Your task to perform on an android device: open wifi settings Image 0: 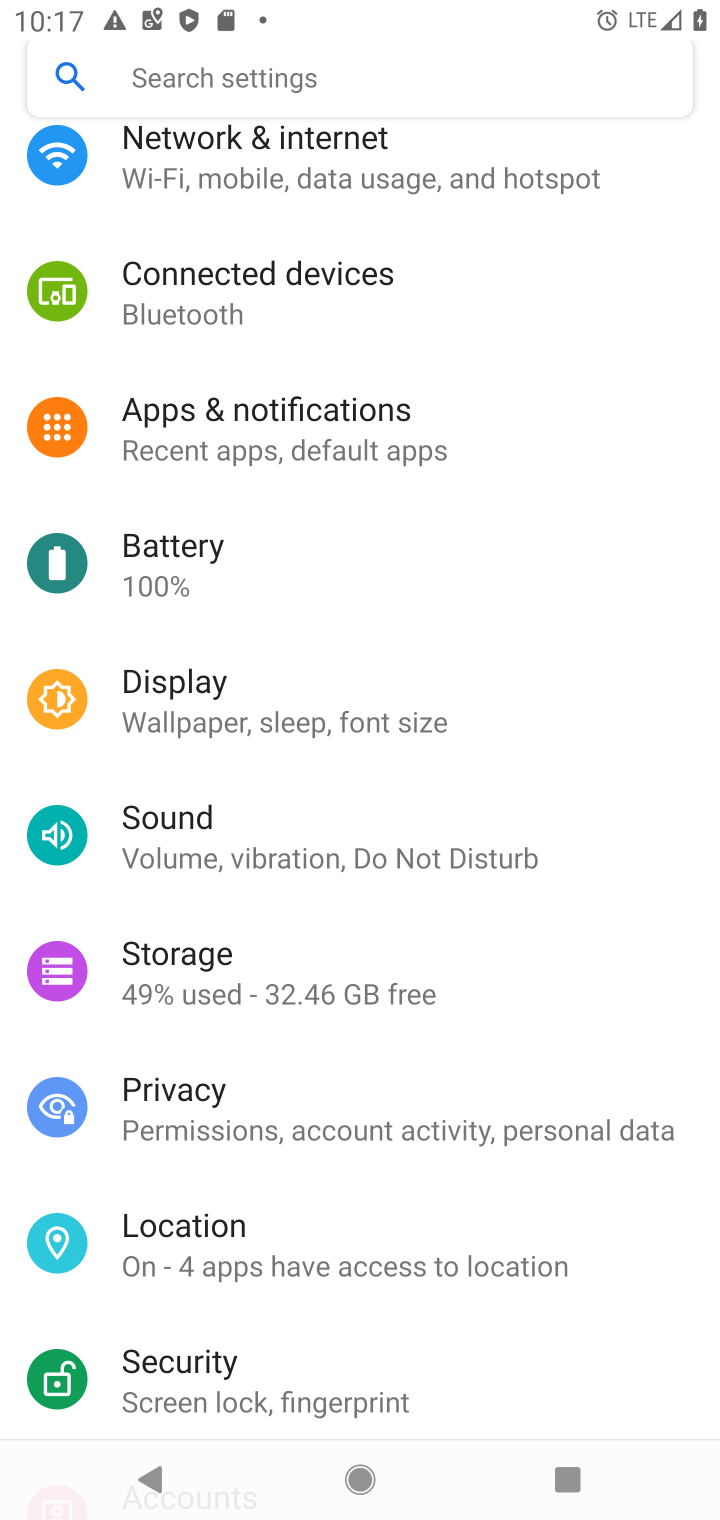
Step 0: press home button
Your task to perform on an android device: open wifi settings Image 1: 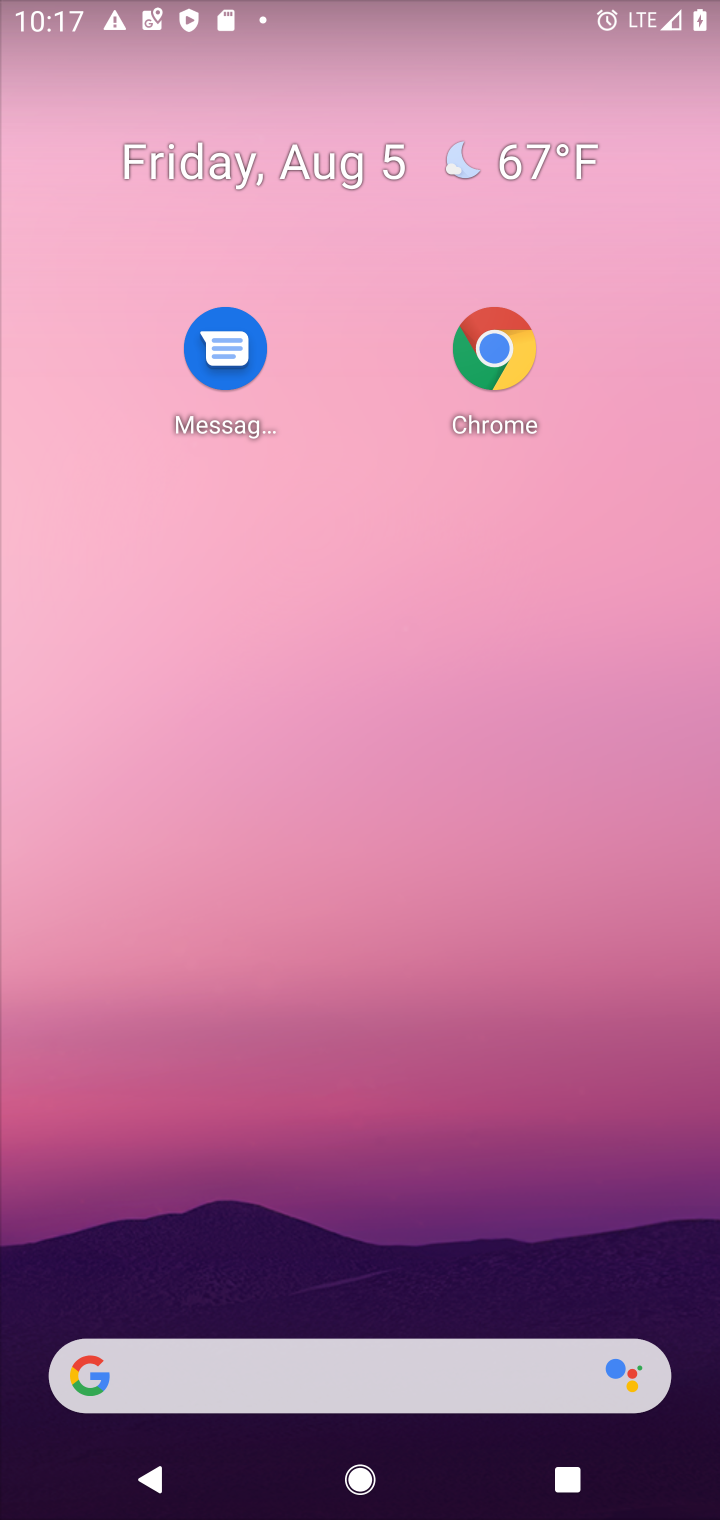
Step 1: drag from (427, 1005) to (319, 217)
Your task to perform on an android device: open wifi settings Image 2: 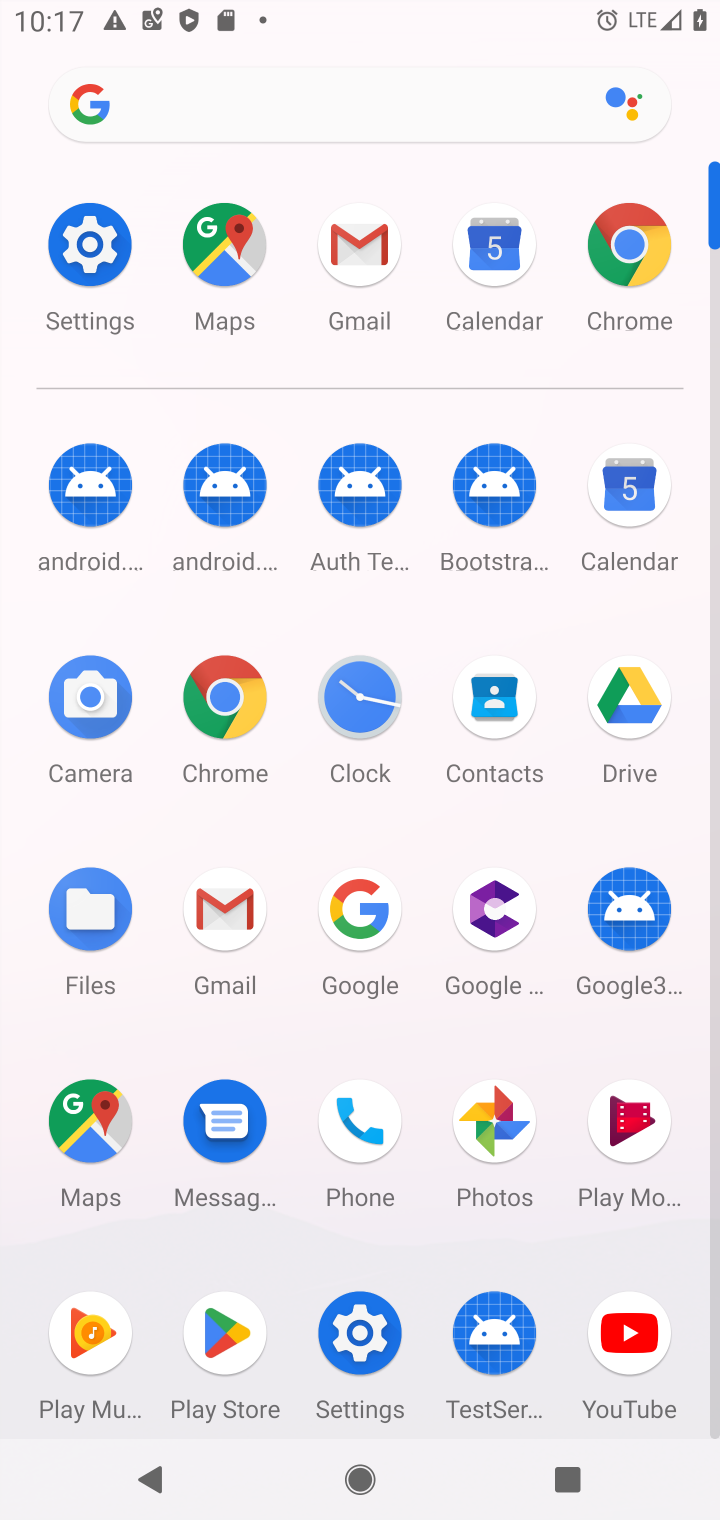
Step 2: click (101, 282)
Your task to perform on an android device: open wifi settings Image 3: 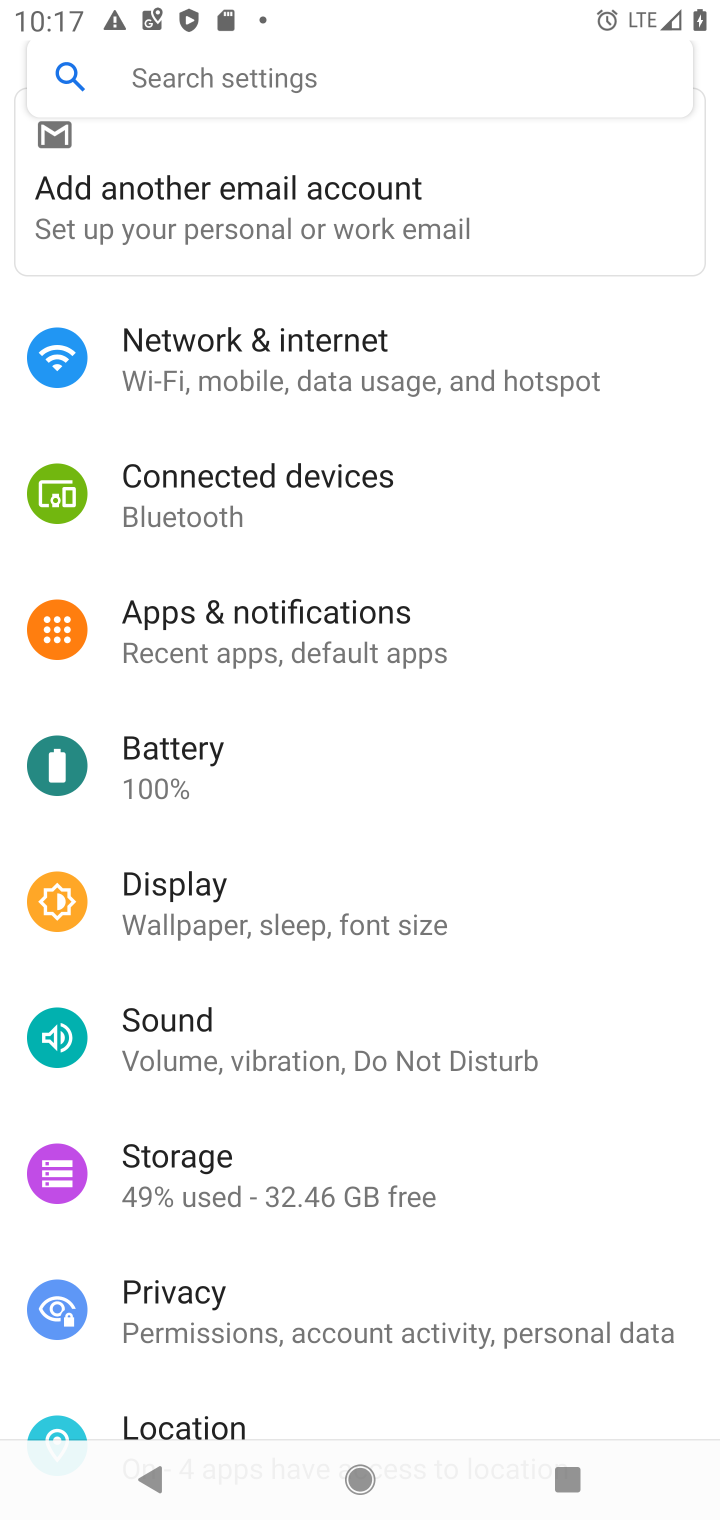
Step 3: click (244, 351)
Your task to perform on an android device: open wifi settings Image 4: 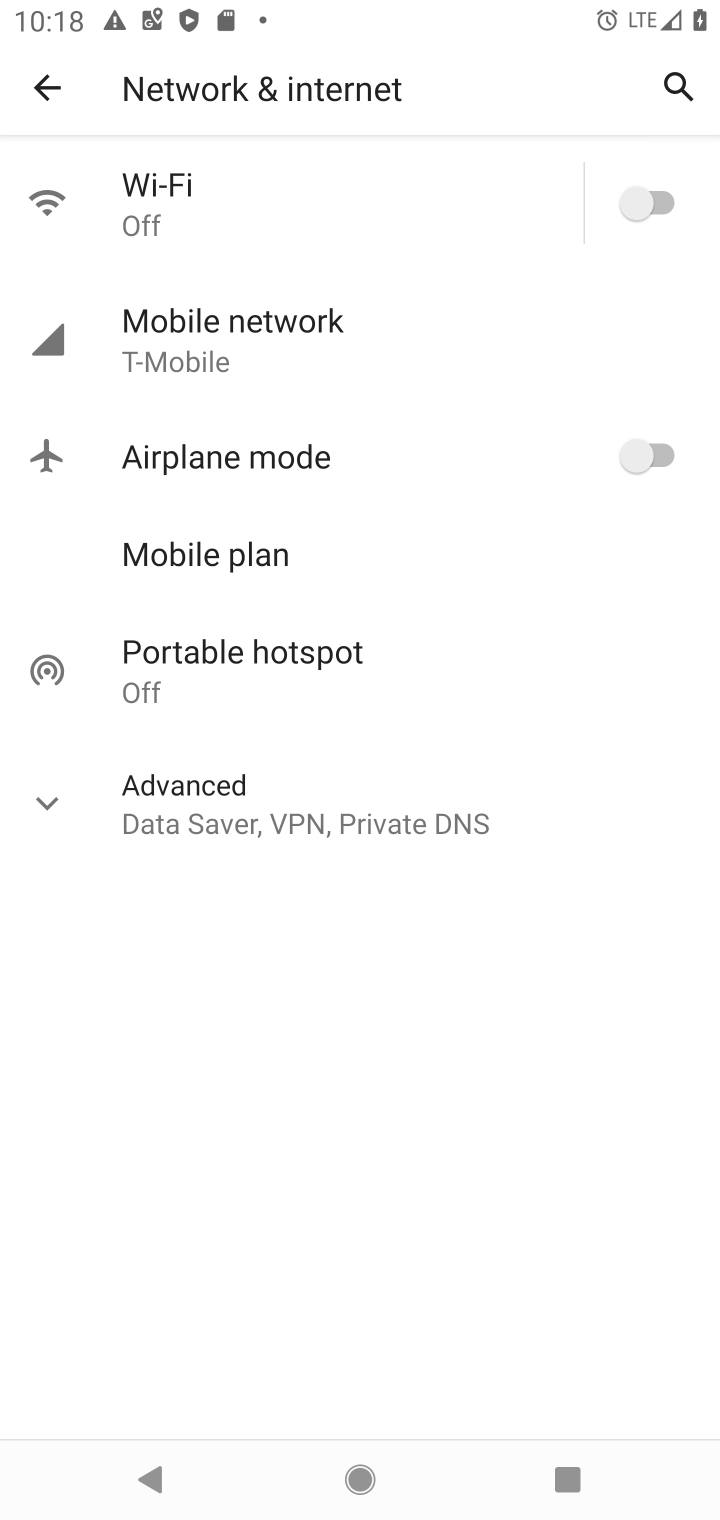
Step 4: click (214, 199)
Your task to perform on an android device: open wifi settings Image 5: 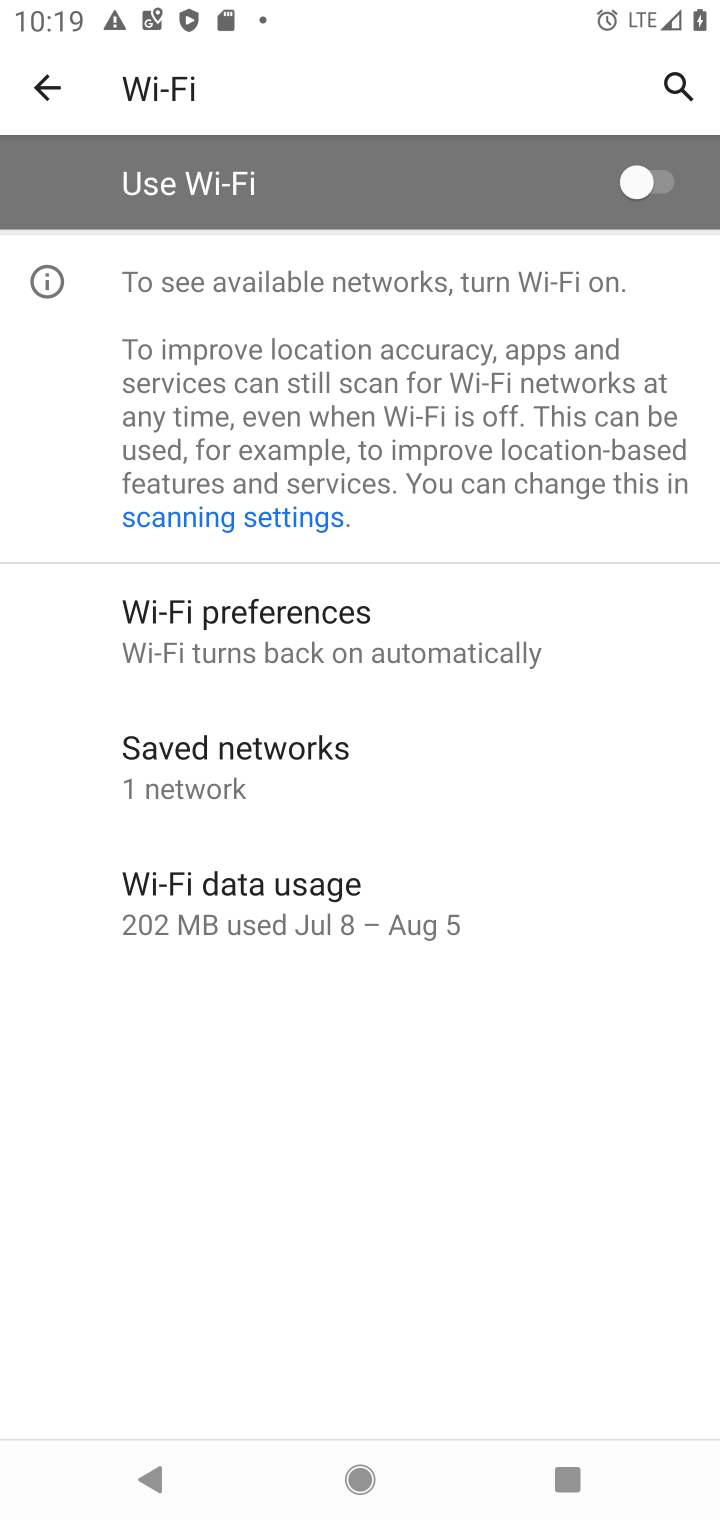
Step 5: task complete